Your task to perform on an android device: install app "DoorDash - Food Delivery" Image 0: 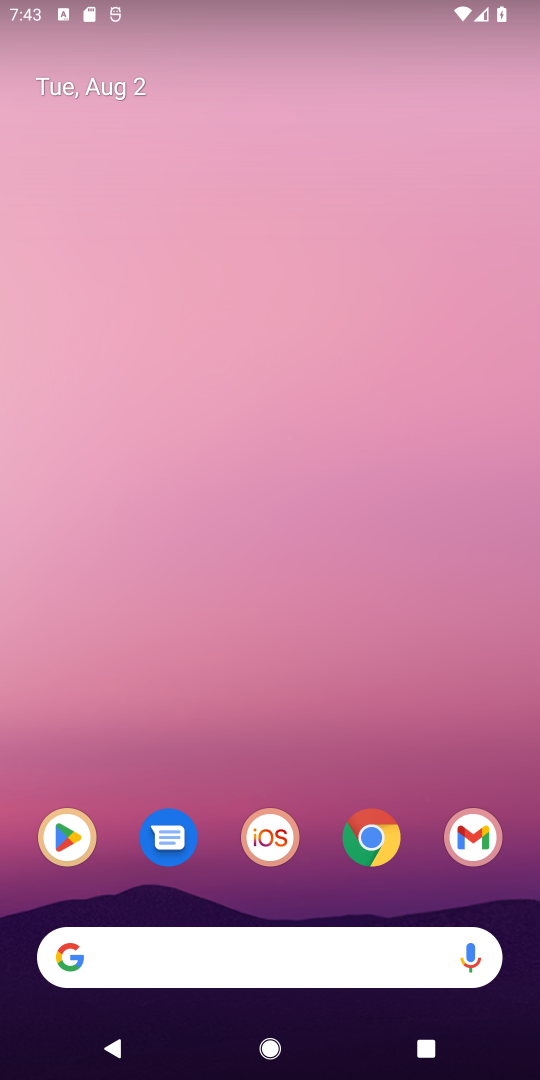
Step 0: click (62, 827)
Your task to perform on an android device: install app "DoorDash - Food Delivery" Image 1: 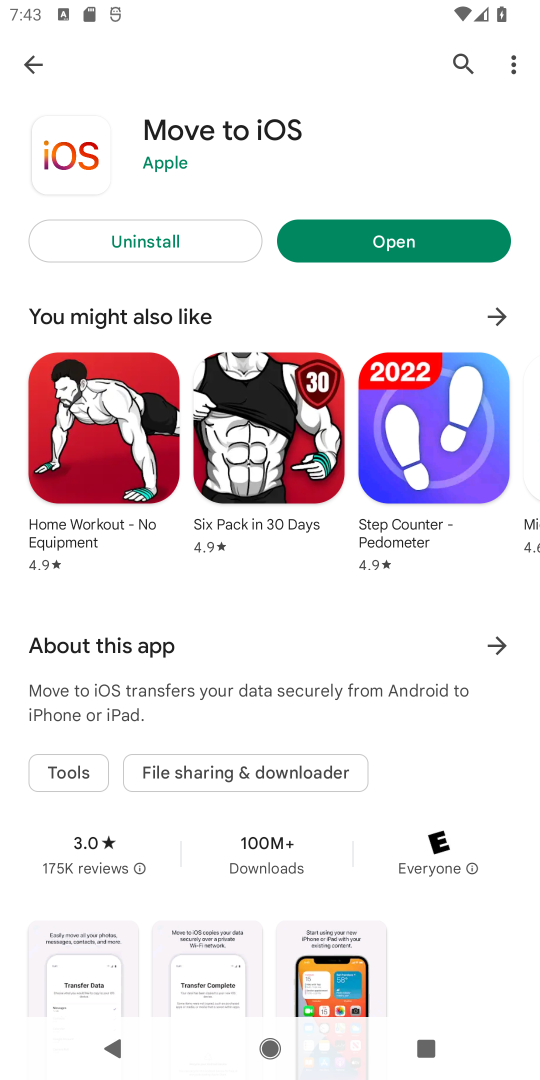
Step 1: click (461, 55)
Your task to perform on an android device: install app "DoorDash - Food Delivery" Image 2: 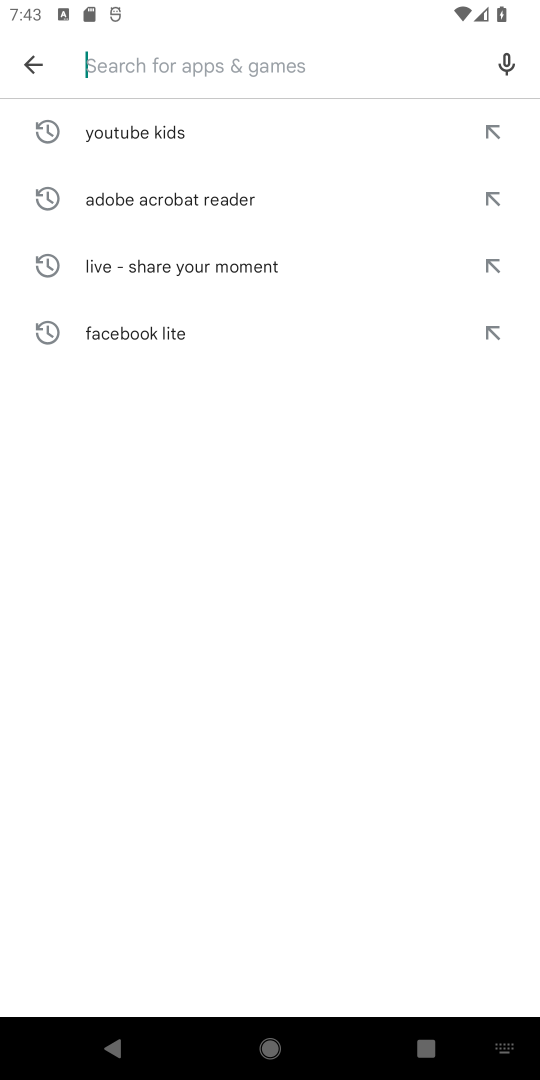
Step 2: type "DoorDash - Food Delivery"
Your task to perform on an android device: install app "DoorDash - Food Delivery" Image 3: 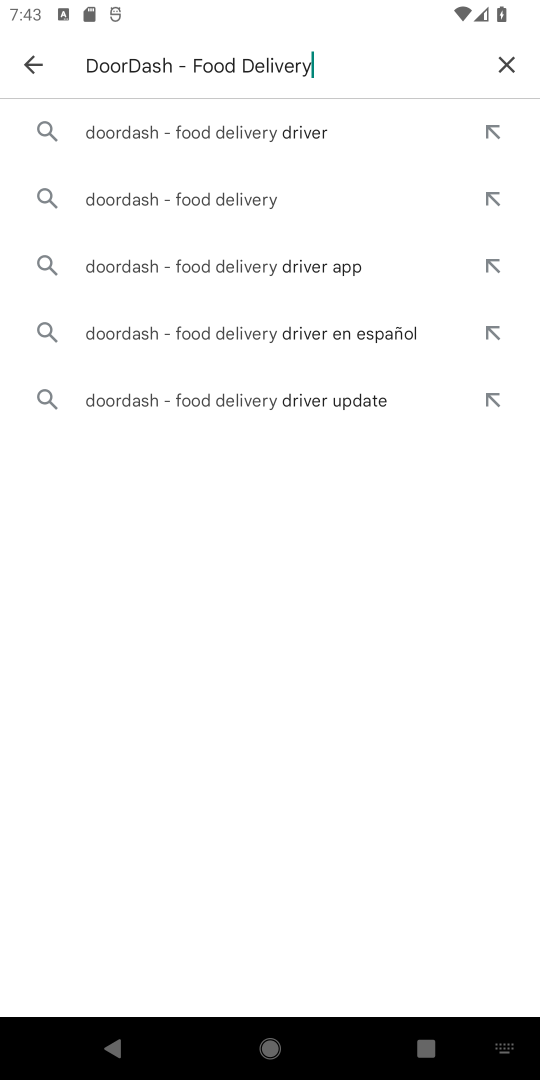
Step 3: click (168, 142)
Your task to perform on an android device: install app "DoorDash - Food Delivery" Image 4: 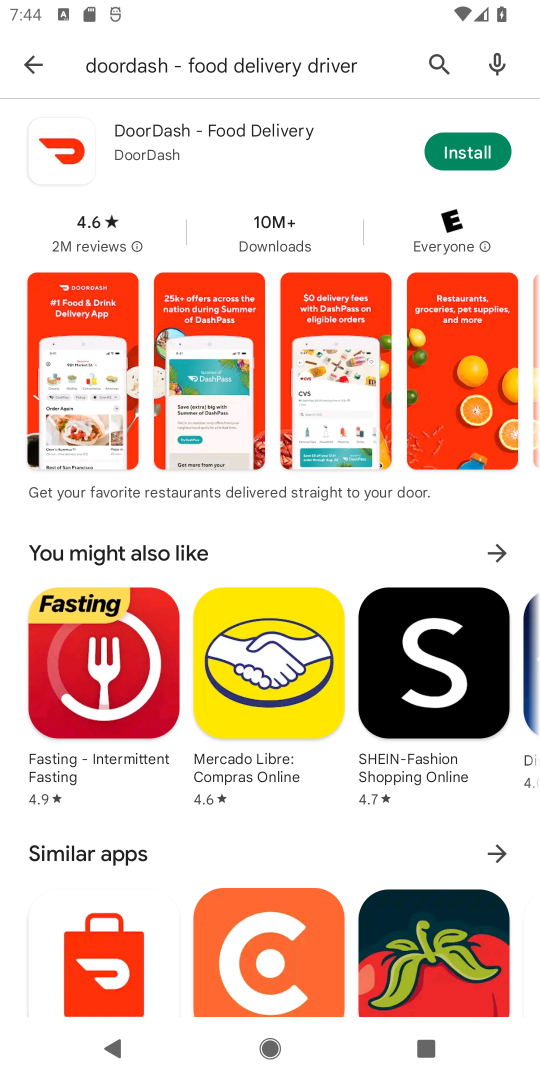
Step 4: click (465, 162)
Your task to perform on an android device: install app "DoorDash - Food Delivery" Image 5: 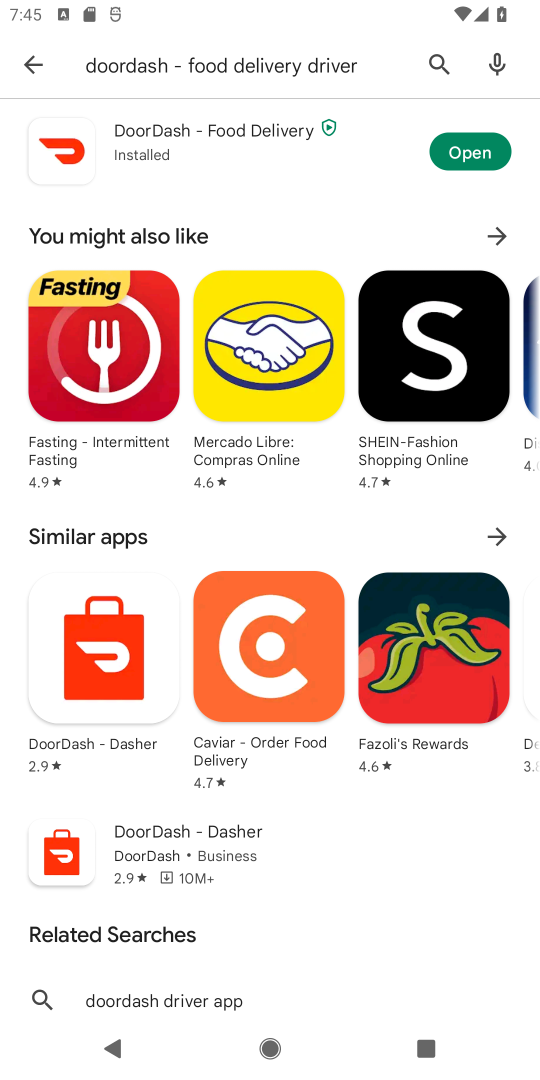
Step 5: task complete